Your task to perform on an android device: open chrome and create a bookmark for the current page Image 0: 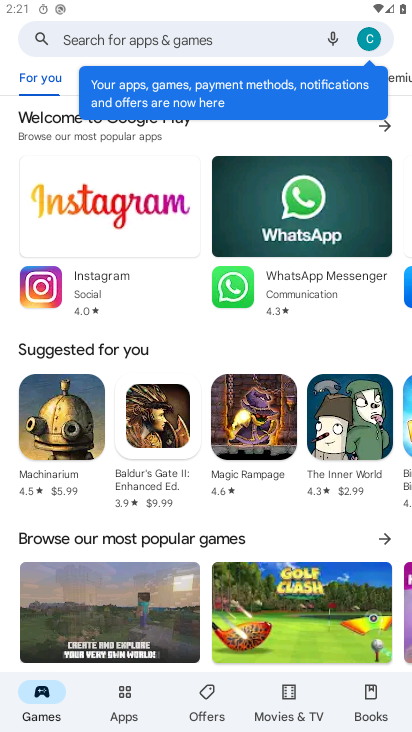
Step 0: press home button
Your task to perform on an android device: open chrome and create a bookmark for the current page Image 1: 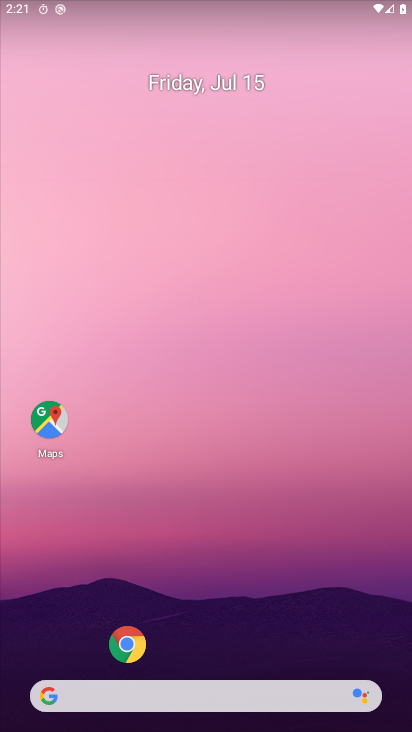
Step 1: click (121, 651)
Your task to perform on an android device: open chrome and create a bookmark for the current page Image 2: 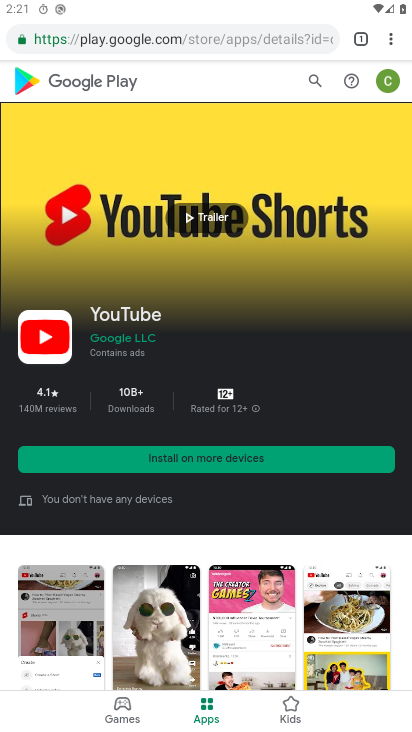
Step 2: click (388, 31)
Your task to perform on an android device: open chrome and create a bookmark for the current page Image 3: 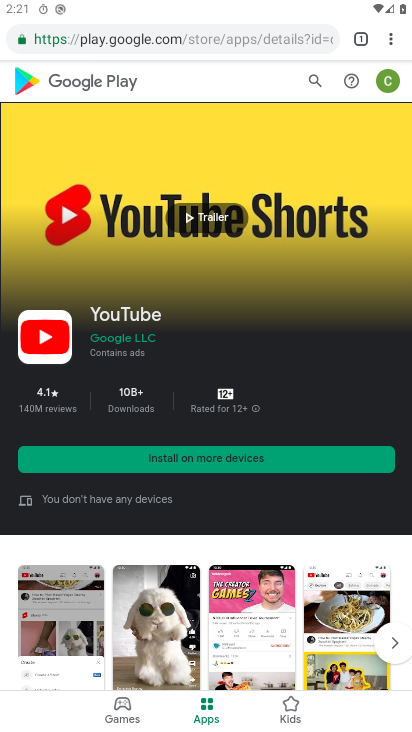
Step 3: click (389, 43)
Your task to perform on an android device: open chrome and create a bookmark for the current page Image 4: 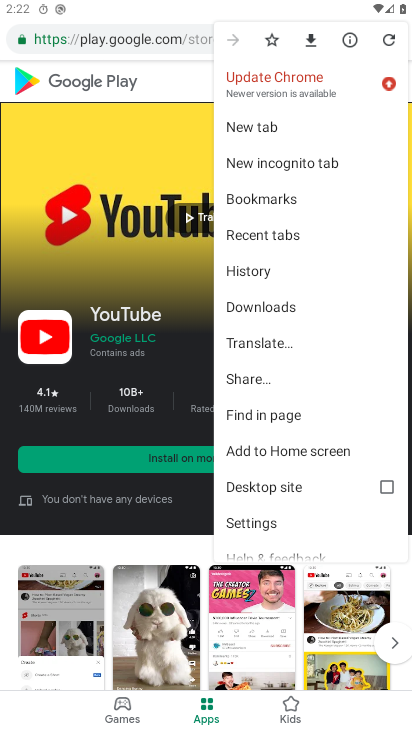
Step 4: click (279, 40)
Your task to perform on an android device: open chrome and create a bookmark for the current page Image 5: 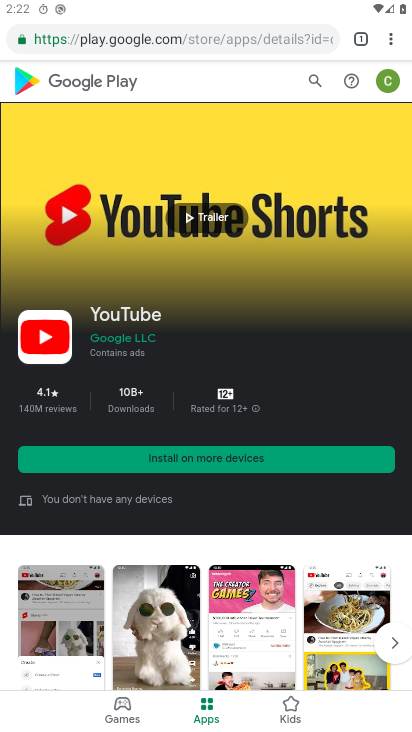
Step 5: task complete